Your task to perform on an android device: Find coffee shops on Maps Image 0: 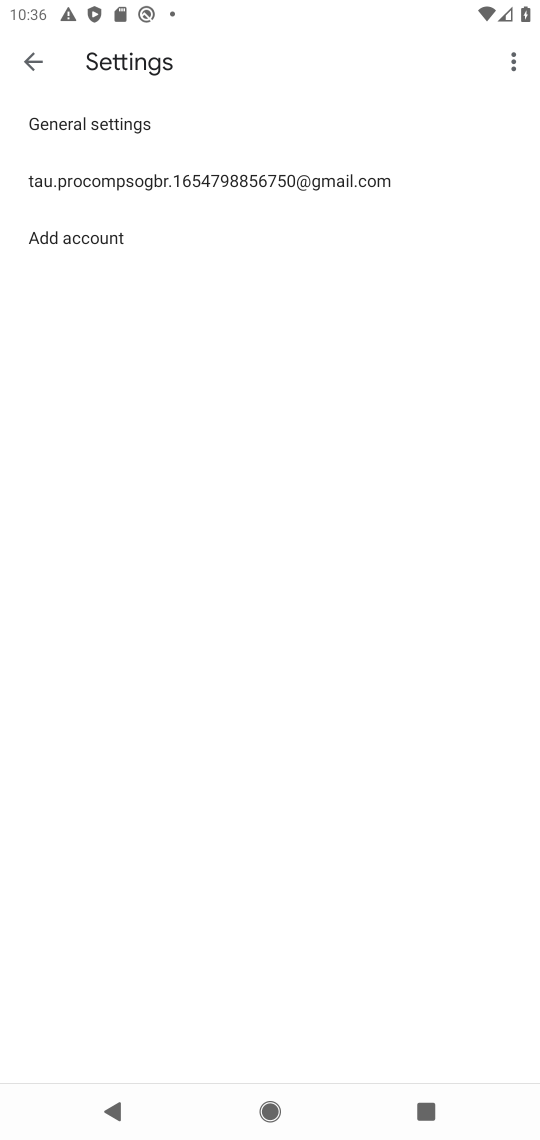
Step 0: press home button
Your task to perform on an android device: Find coffee shops on Maps Image 1: 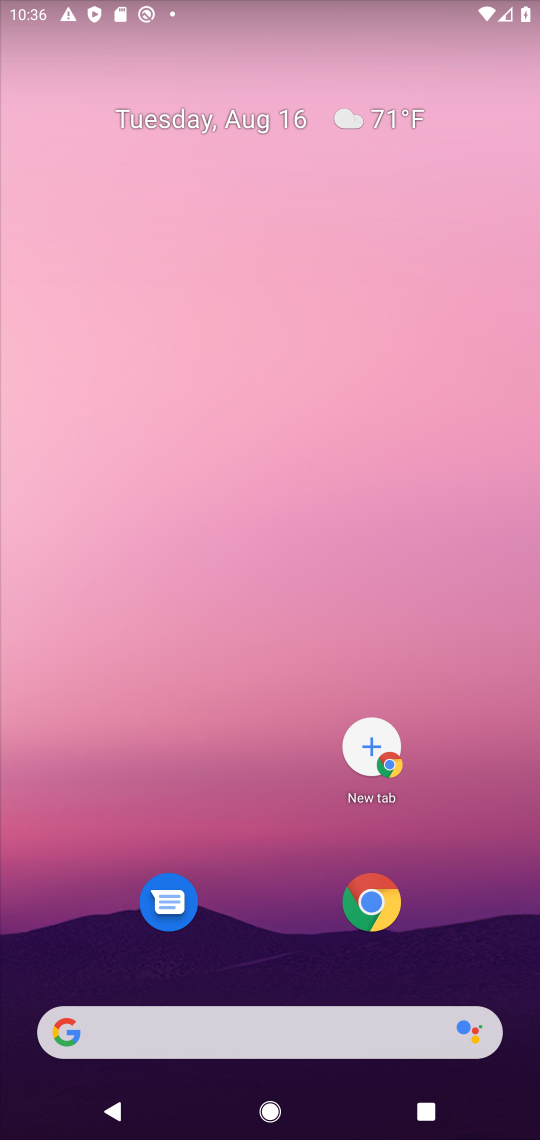
Step 1: drag from (223, 1035) to (211, 427)
Your task to perform on an android device: Find coffee shops on Maps Image 2: 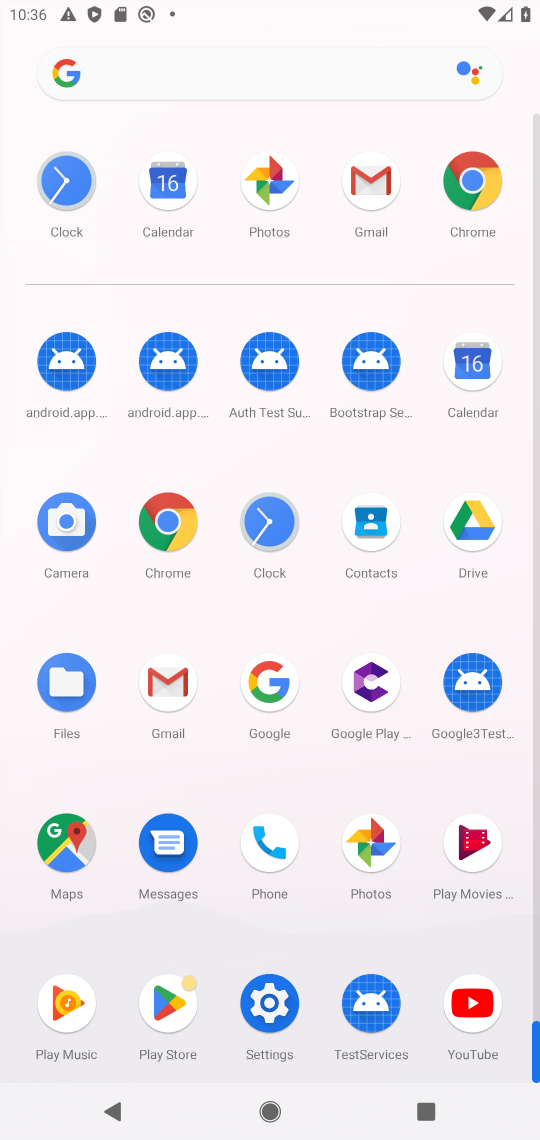
Step 2: click (62, 860)
Your task to perform on an android device: Find coffee shops on Maps Image 3: 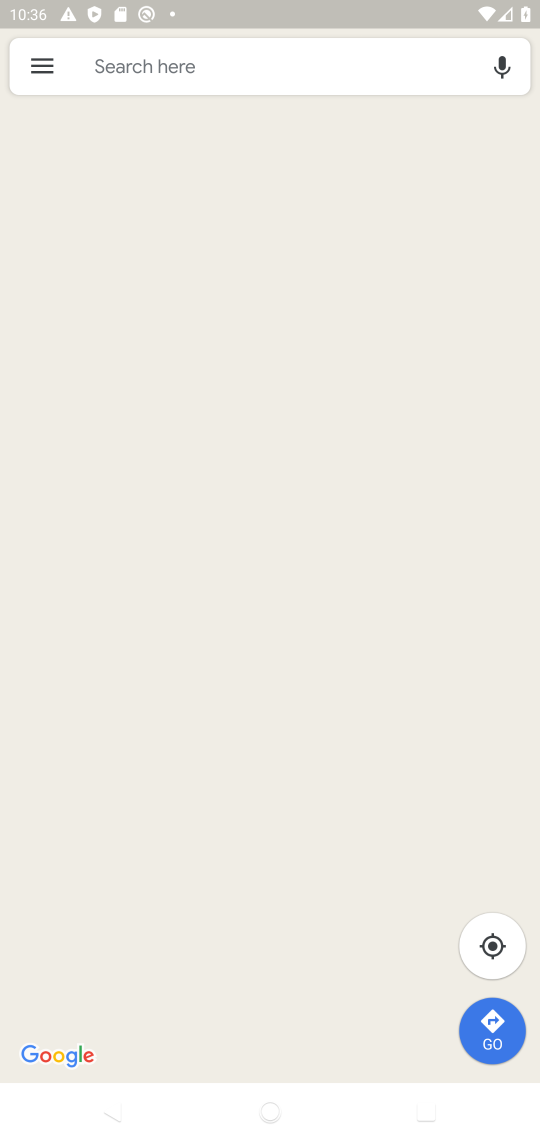
Step 3: click (173, 70)
Your task to perform on an android device: Find coffee shops on Maps Image 4: 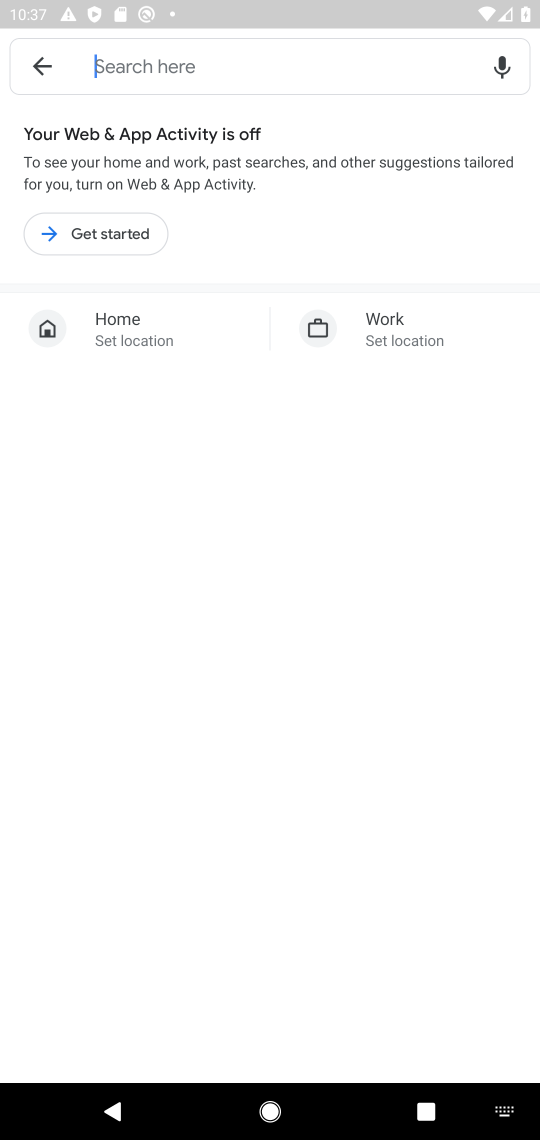
Step 4: click (132, 60)
Your task to perform on an android device: Find coffee shops on Maps Image 5: 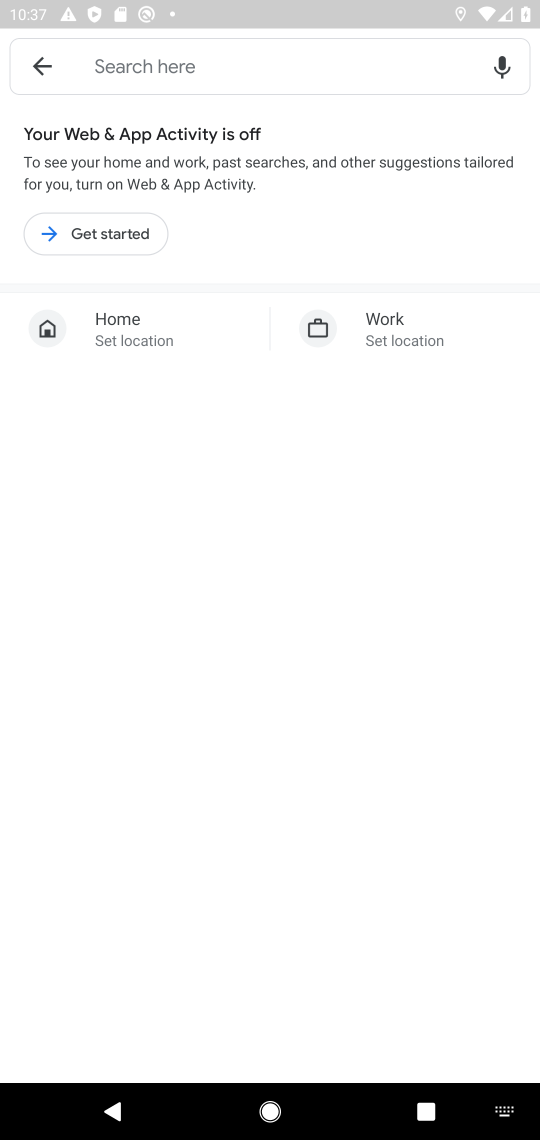
Step 5: click (118, 76)
Your task to perform on an android device: Find coffee shops on Maps Image 6: 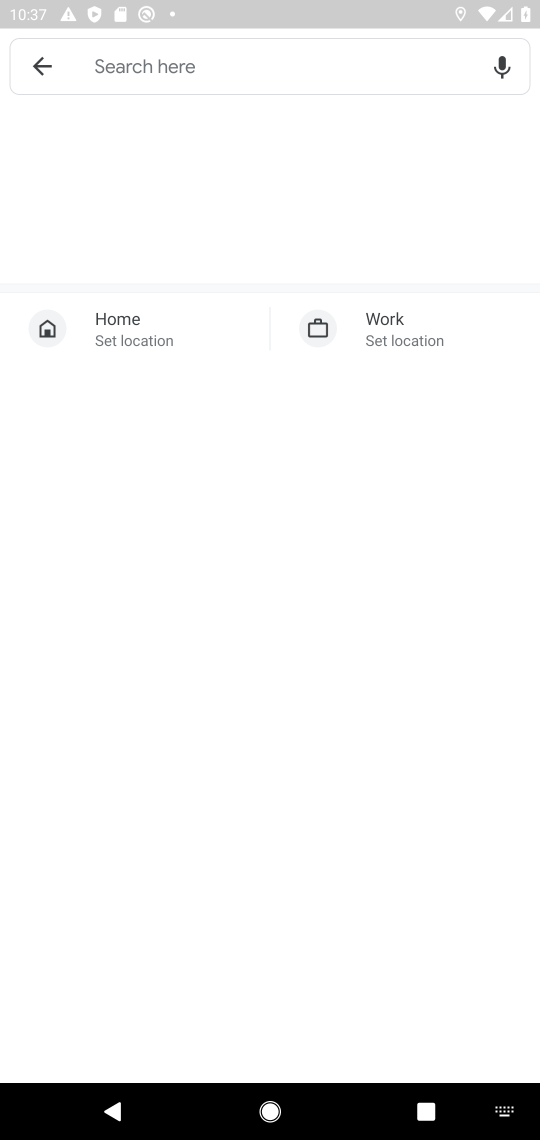
Step 6: click (83, 60)
Your task to perform on an android device: Find coffee shops on Maps Image 7: 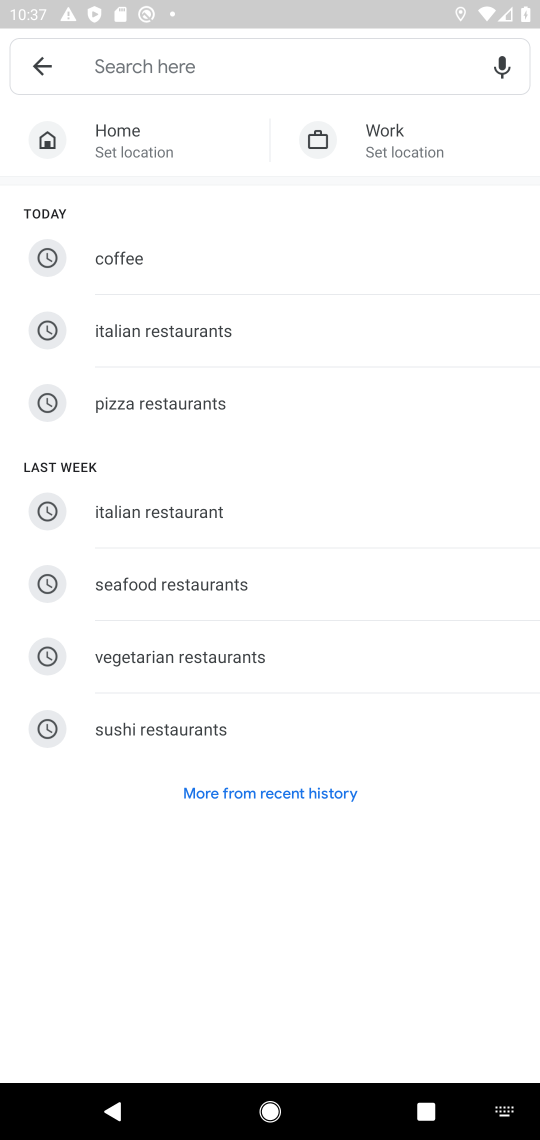
Step 7: click (114, 258)
Your task to perform on an android device: Find coffee shops on Maps Image 8: 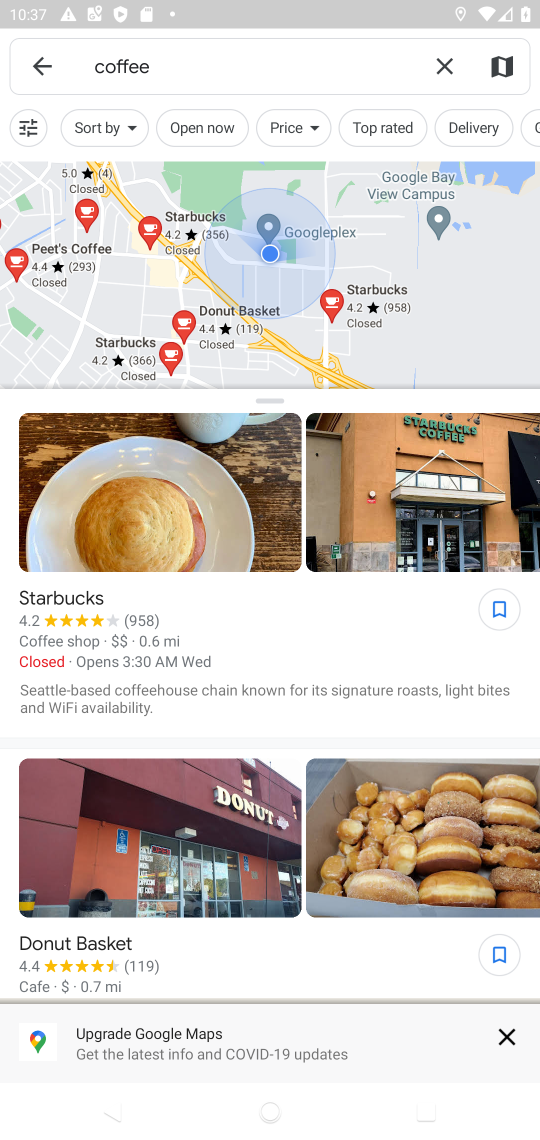
Step 8: task complete